Your task to perform on an android device: Go to eBay Image 0: 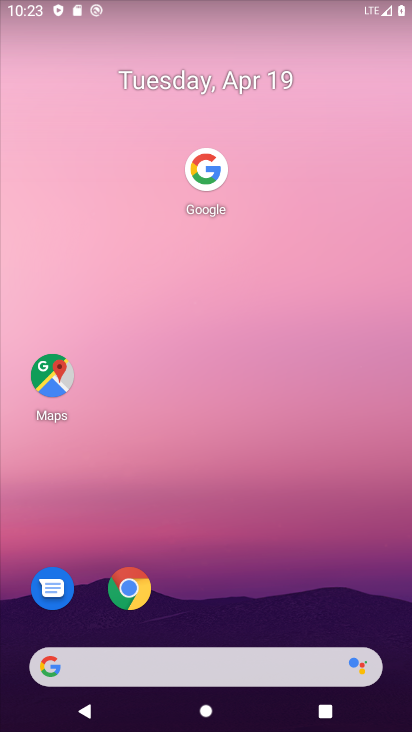
Step 0: click (132, 593)
Your task to perform on an android device: Go to eBay Image 1: 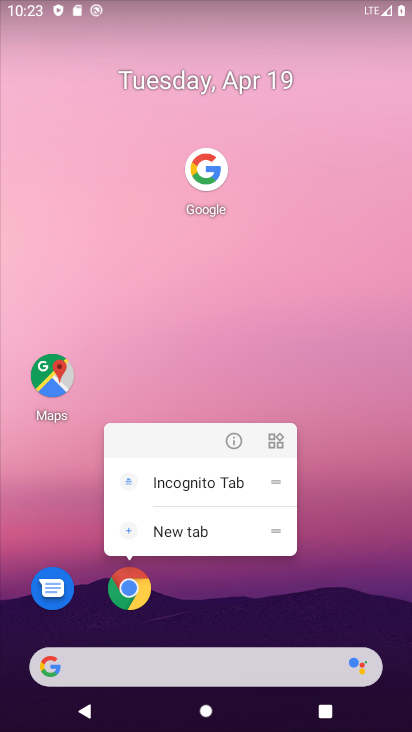
Step 1: click (128, 592)
Your task to perform on an android device: Go to eBay Image 2: 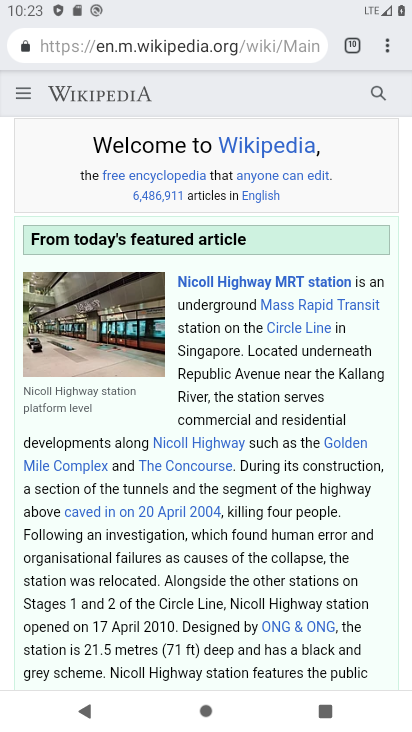
Step 2: click (388, 43)
Your task to perform on an android device: Go to eBay Image 3: 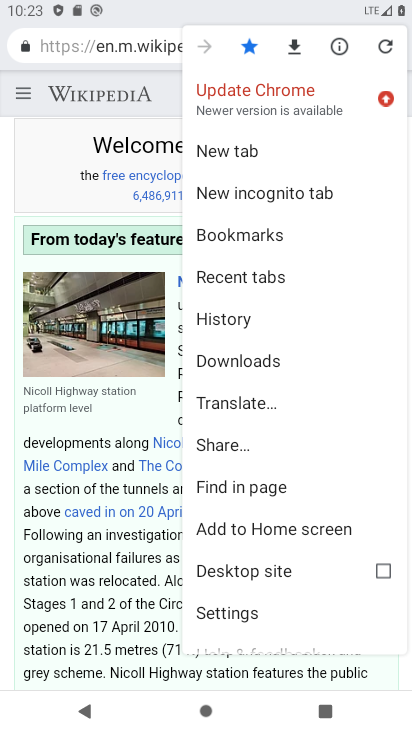
Step 3: click (244, 147)
Your task to perform on an android device: Go to eBay Image 4: 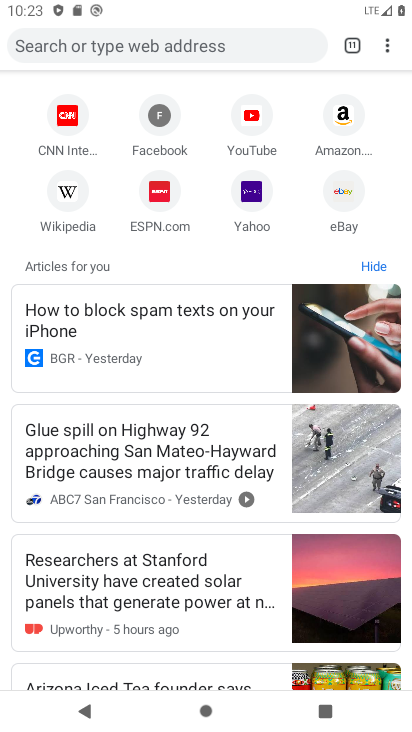
Step 4: click (341, 204)
Your task to perform on an android device: Go to eBay Image 5: 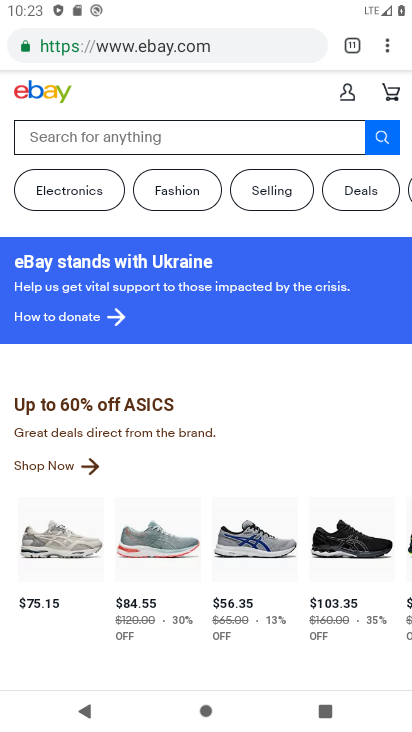
Step 5: task complete